Your task to perform on an android device: Go to eBay Image 0: 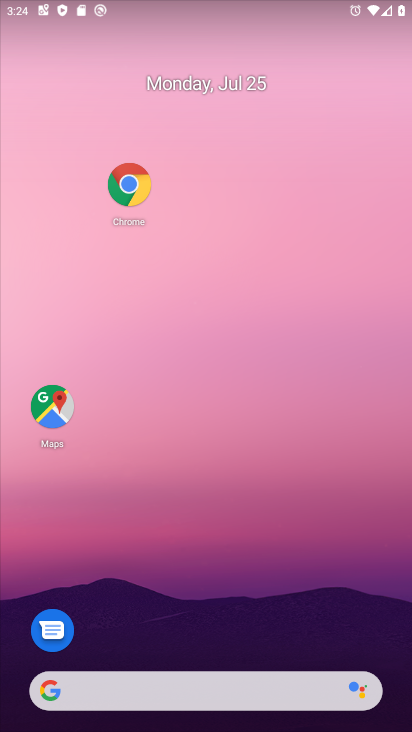
Step 0: drag from (231, 654) to (220, 206)
Your task to perform on an android device: Go to eBay Image 1: 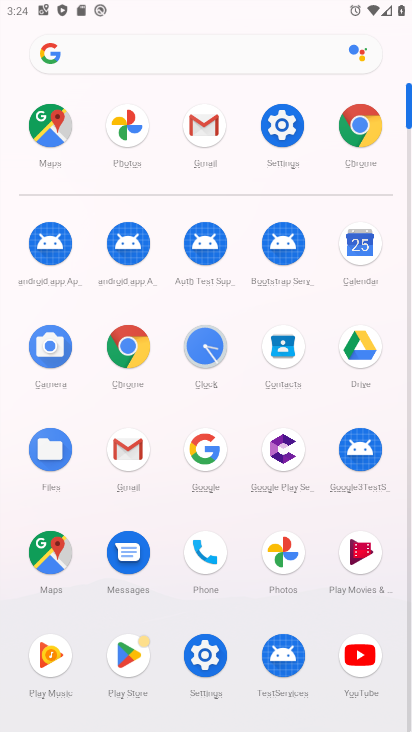
Step 1: click (358, 145)
Your task to perform on an android device: Go to eBay Image 2: 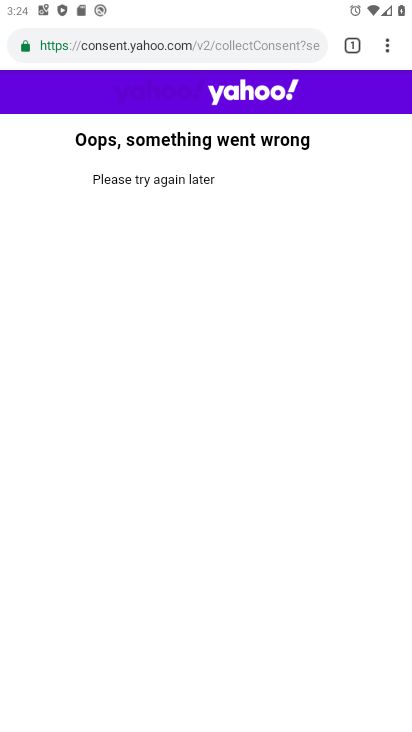
Step 2: click (241, 55)
Your task to perform on an android device: Go to eBay Image 3: 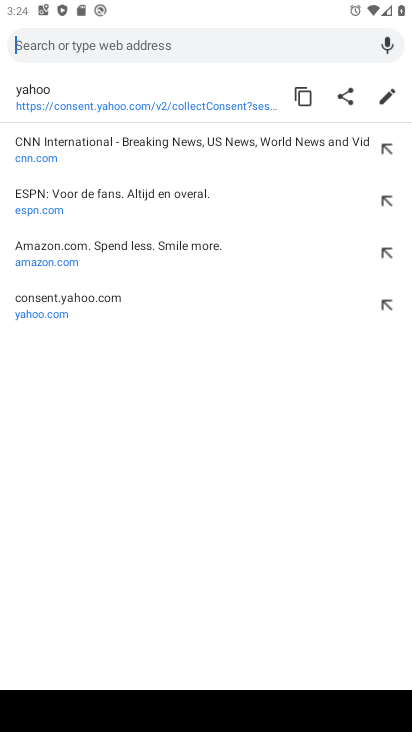
Step 3: type "ebay.com"
Your task to perform on an android device: Go to eBay Image 4: 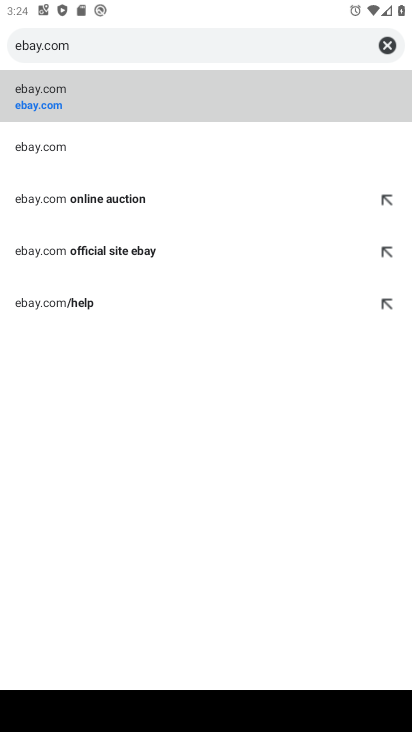
Step 4: click (113, 116)
Your task to perform on an android device: Go to eBay Image 5: 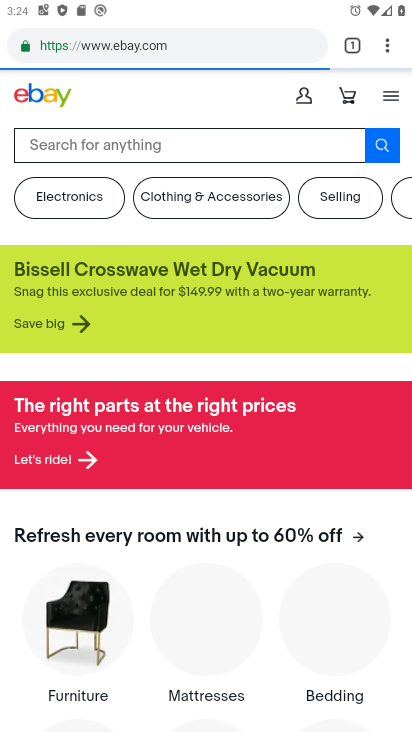
Step 5: task complete